Your task to perform on an android device: turn on javascript in the chrome app Image 0: 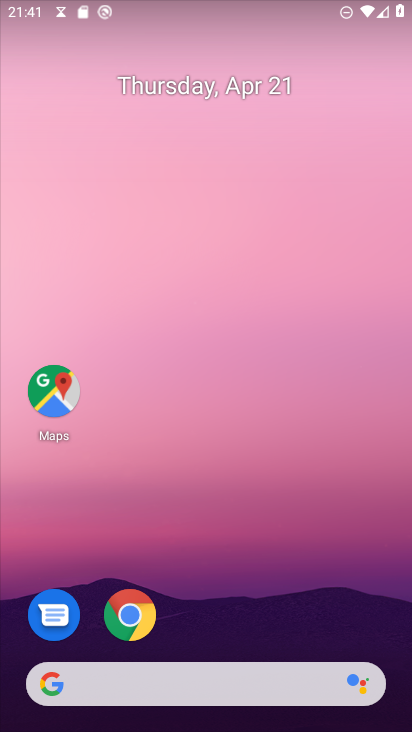
Step 0: drag from (194, 646) to (206, 195)
Your task to perform on an android device: turn on javascript in the chrome app Image 1: 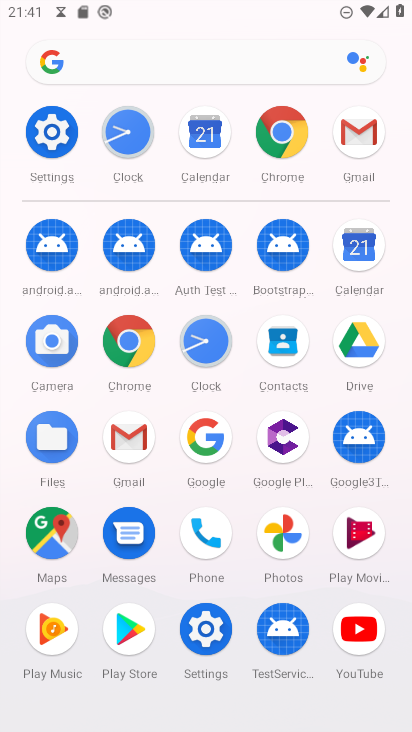
Step 1: click (132, 343)
Your task to perform on an android device: turn on javascript in the chrome app Image 2: 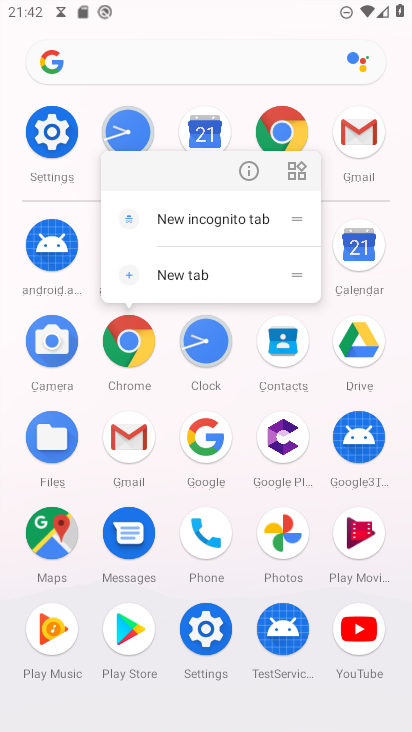
Step 2: click (248, 173)
Your task to perform on an android device: turn on javascript in the chrome app Image 3: 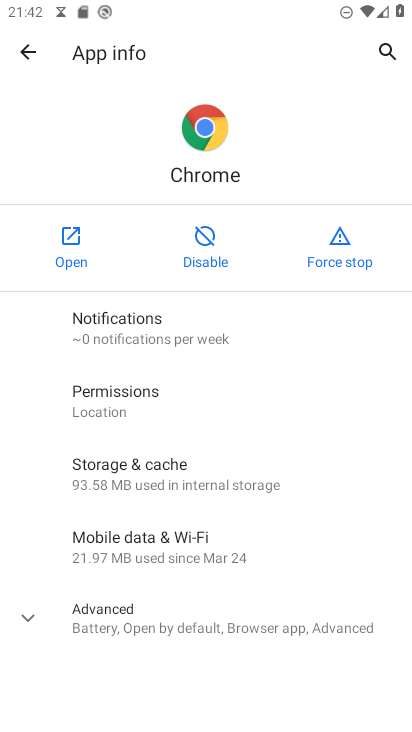
Step 3: click (64, 251)
Your task to perform on an android device: turn on javascript in the chrome app Image 4: 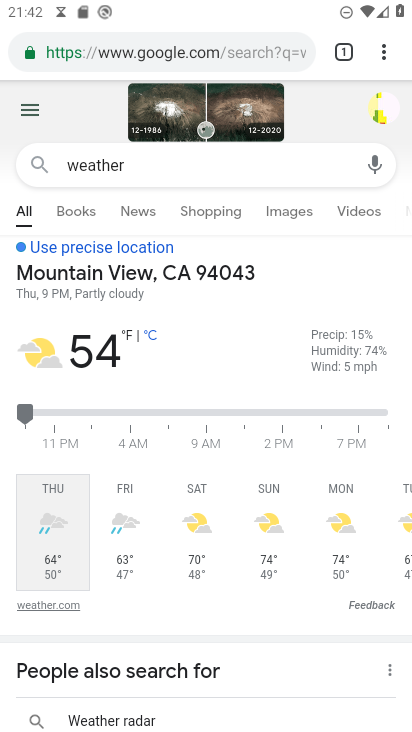
Step 4: drag from (382, 55) to (239, 635)
Your task to perform on an android device: turn on javascript in the chrome app Image 5: 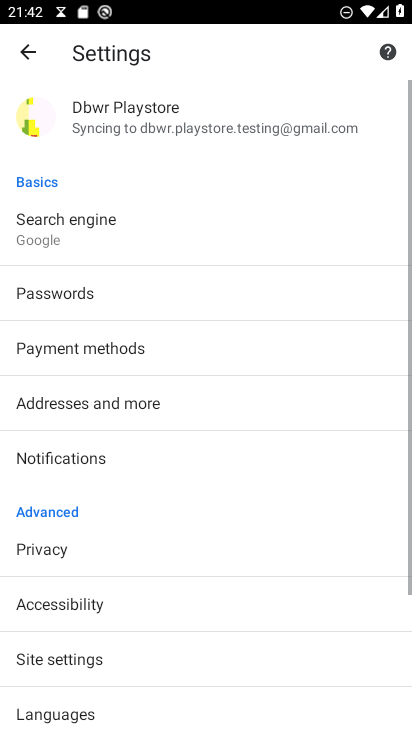
Step 5: drag from (116, 616) to (237, 135)
Your task to perform on an android device: turn on javascript in the chrome app Image 6: 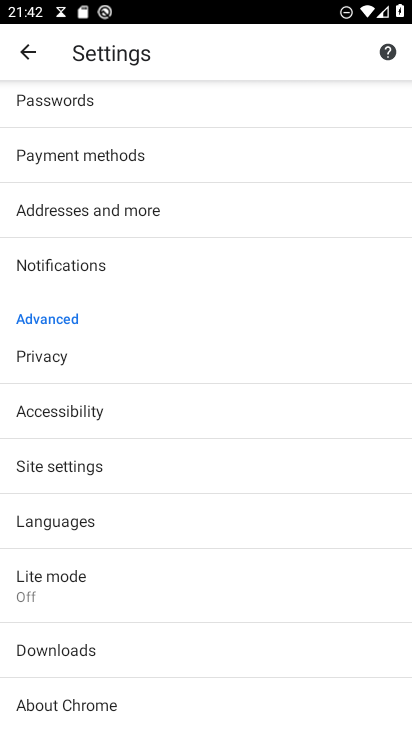
Step 6: click (124, 471)
Your task to perform on an android device: turn on javascript in the chrome app Image 7: 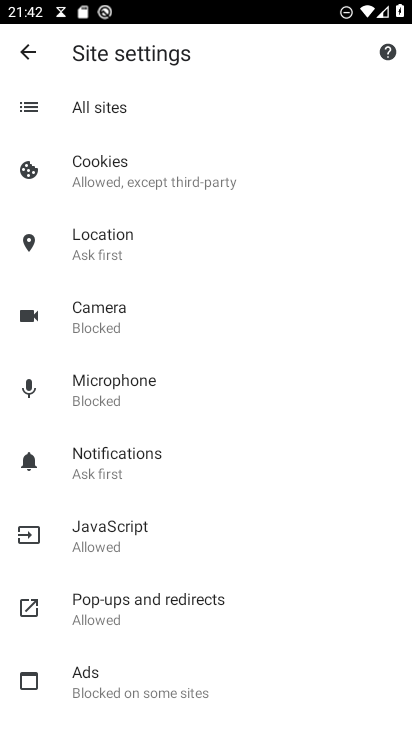
Step 7: click (181, 538)
Your task to perform on an android device: turn on javascript in the chrome app Image 8: 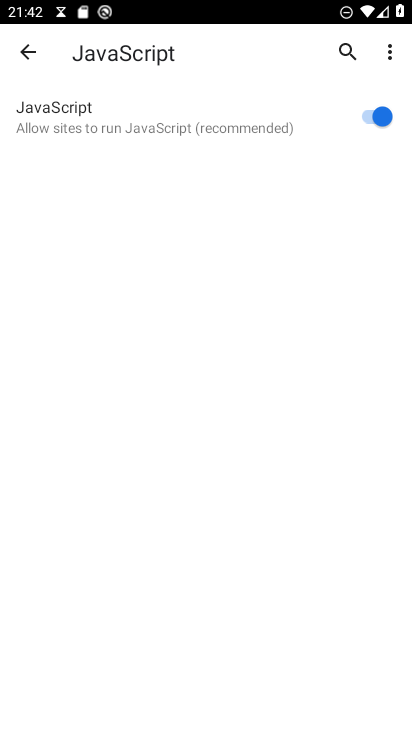
Step 8: task complete